Your task to perform on an android device: check battery use Image 0: 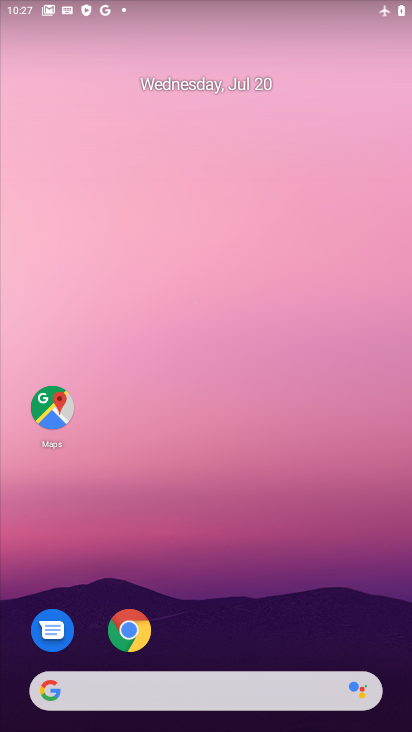
Step 0: drag from (179, 622) to (217, 24)
Your task to perform on an android device: check battery use Image 1: 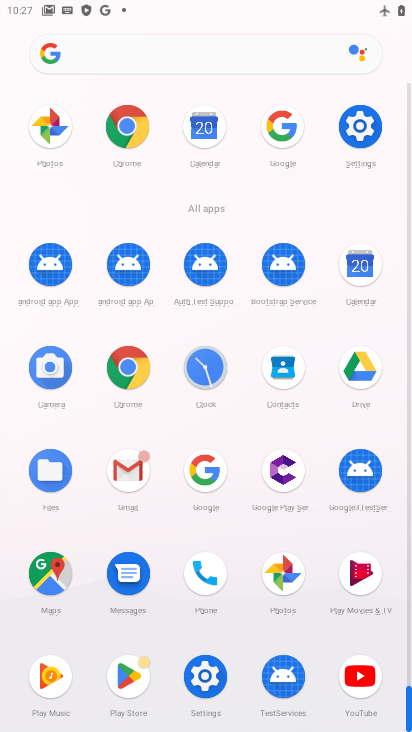
Step 1: click (207, 668)
Your task to perform on an android device: check battery use Image 2: 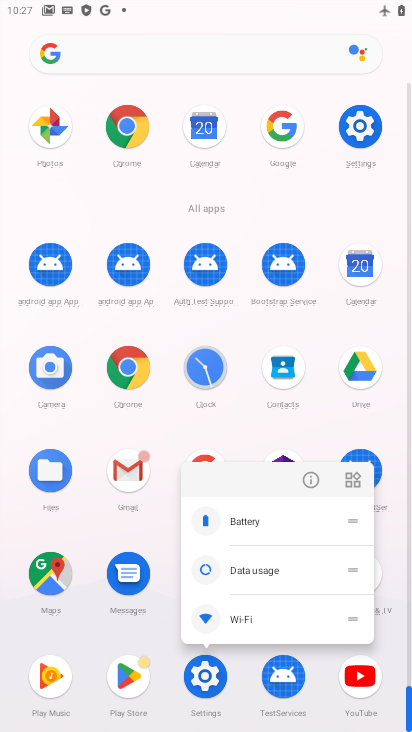
Step 2: click (312, 475)
Your task to perform on an android device: check battery use Image 3: 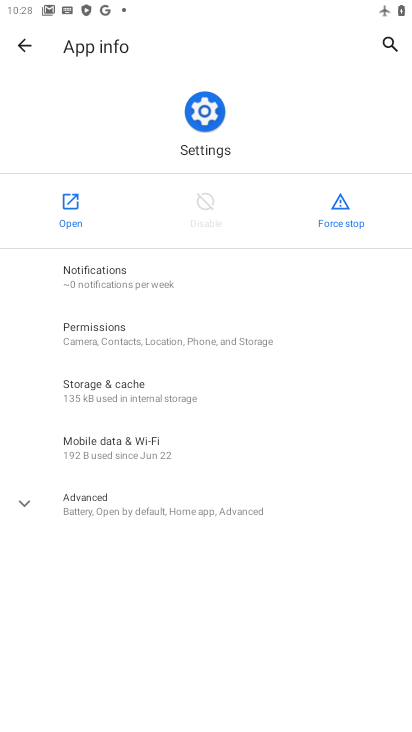
Step 3: click (74, 210)
Your task to perform on an android device: check battery use Image 4: 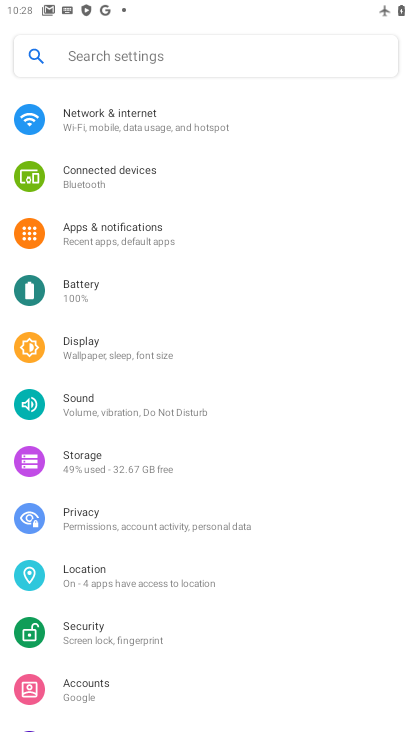
Step 4: click (91, 293)
Your task to perform on an android device: check battery use Image 5: 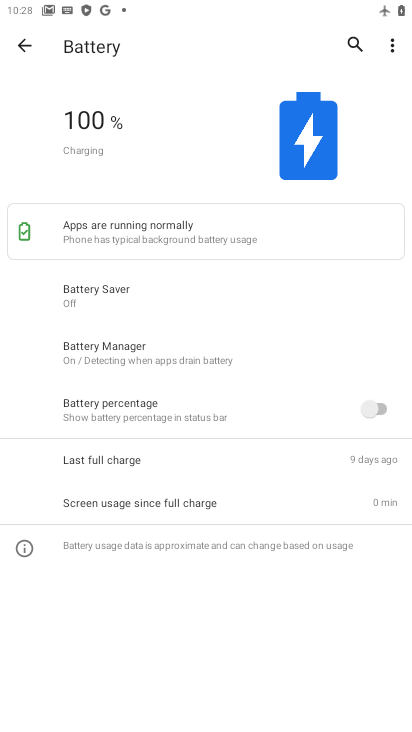
Step 5: click (389, 44)
Your task to perform on an android device: check battery use Image 6: 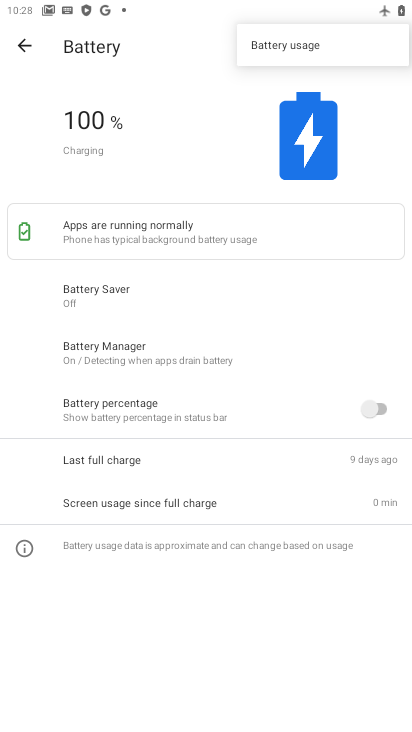
Step 6: click (315, 41)
Your task to perform on an android device: check battery use Image 7: 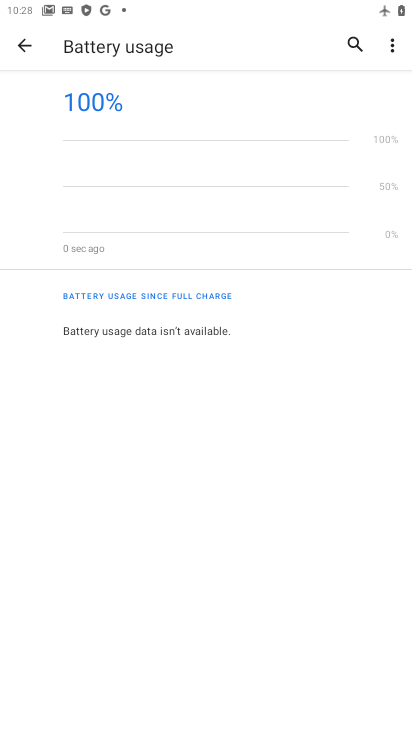
Step 7: task complete